Your task to perform on an android device: What's a good restaurant in Portland? Image 0: 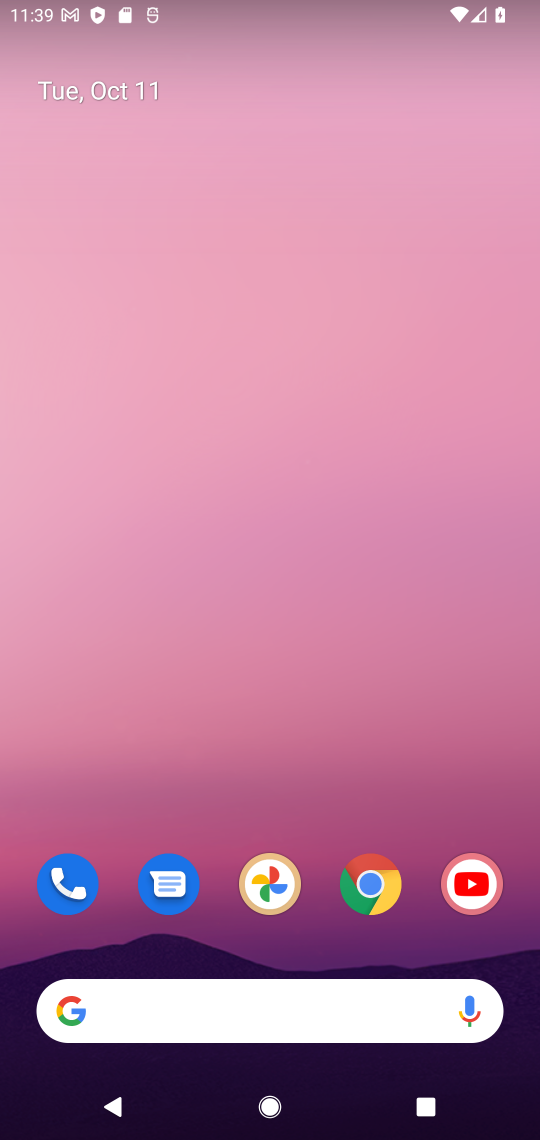
Step 0: press home button
Your task to perform on an android device: What's a good restaurant in Portland? Image 1: 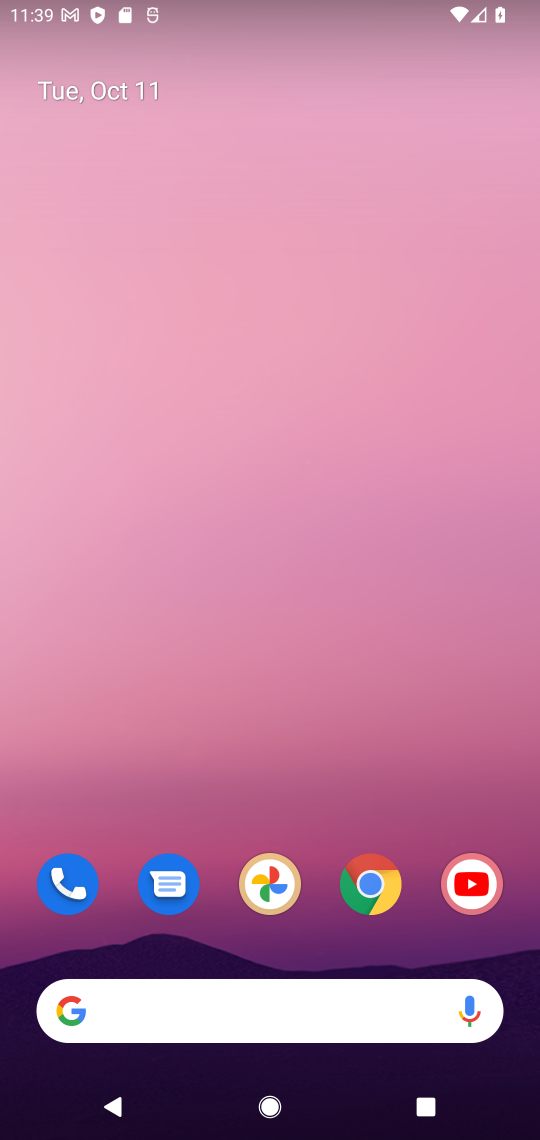
Step 1: drag from (273, 712) to (280, 328)
Your task to perform on an android device: What's a good restaurant in Portland? Image 2: 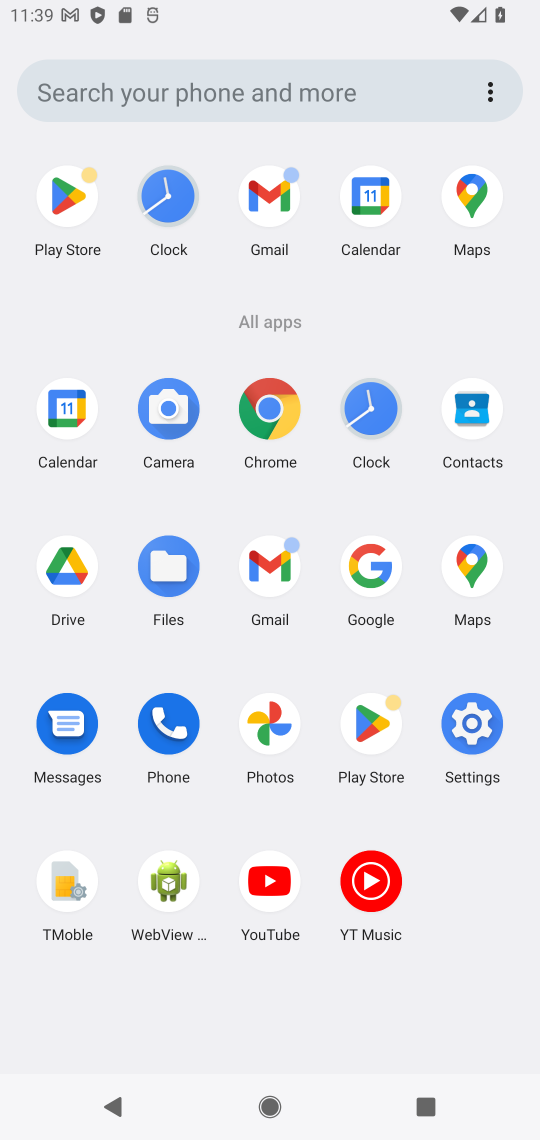
Step 2: click (370, 568)
Your task to perform on an android device: What's a good restaurant in Portland? Image 3: 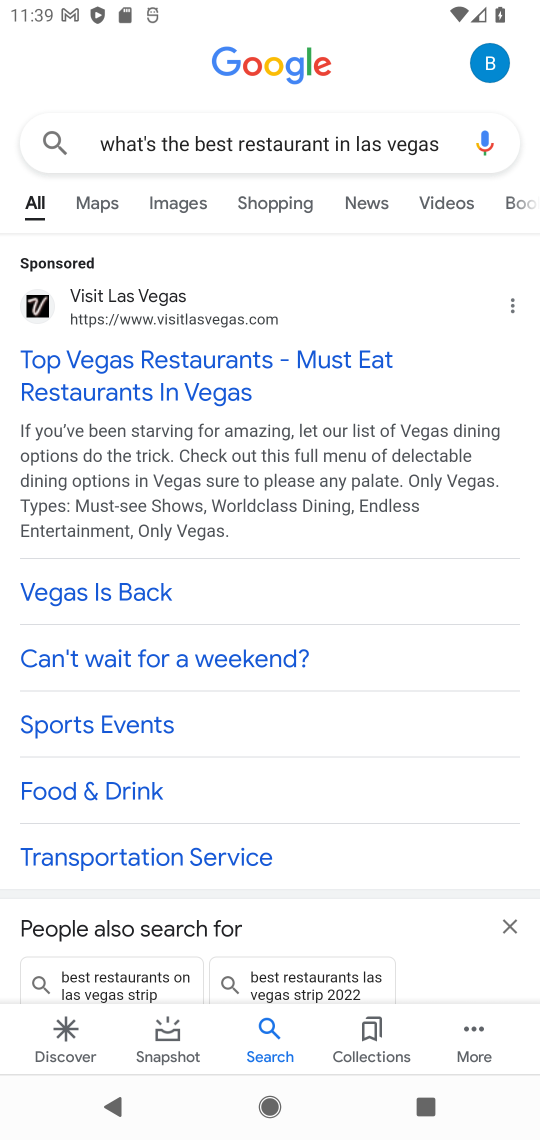
Step 3: click (334, 143)
Your task to perform on an android device: What's a good restaurant in Portland? Image 4: 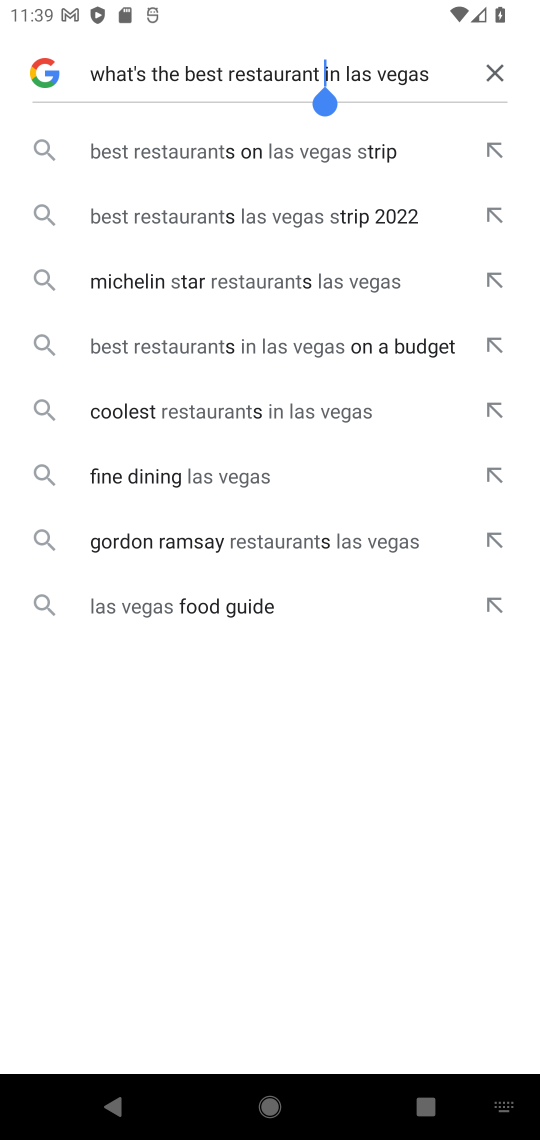
Step 4: click (494, 67)
Your task to perform on an android device: What's a good restaurant in Portland? Image 5: 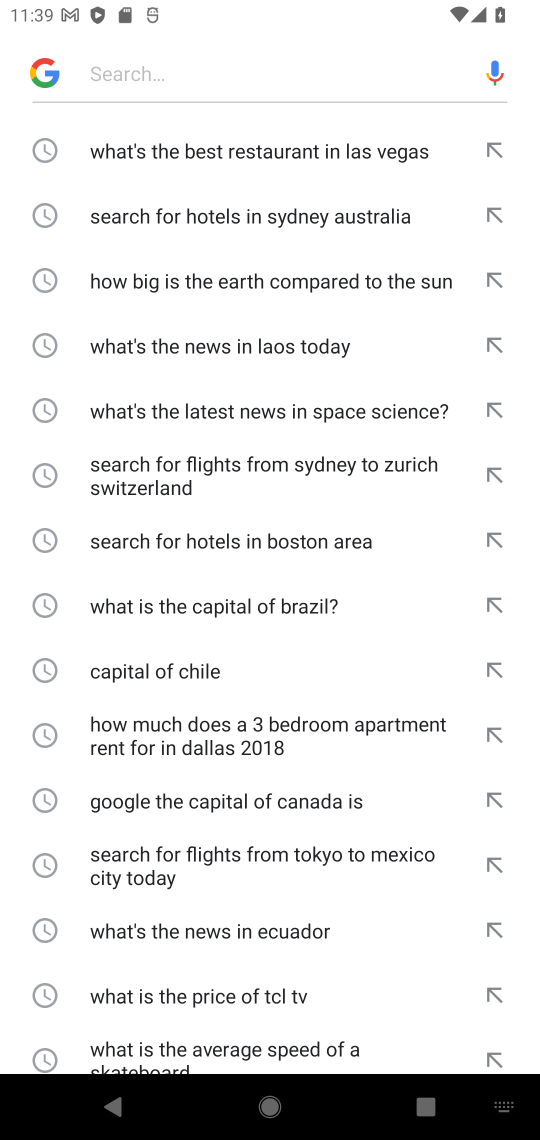
Step 5: type "What's a good restaurant in Portland?"
Your task to perform on an android device: What's a good restaurant in Portland? Image 6: 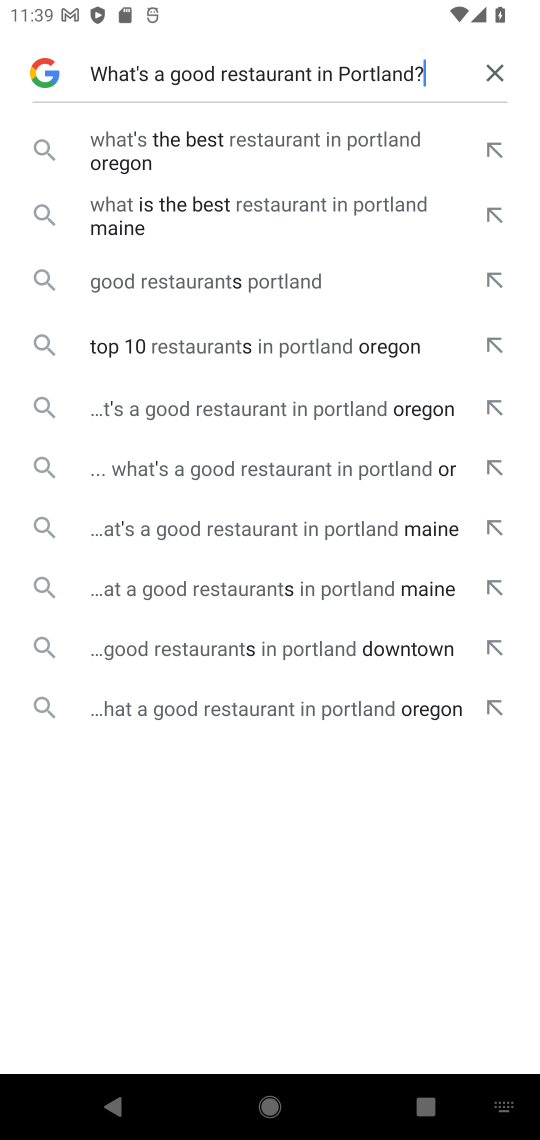
Step 6: click (274, 152)
Your task to perform on an android device: What's a good restaurant in Portland? Image 7: 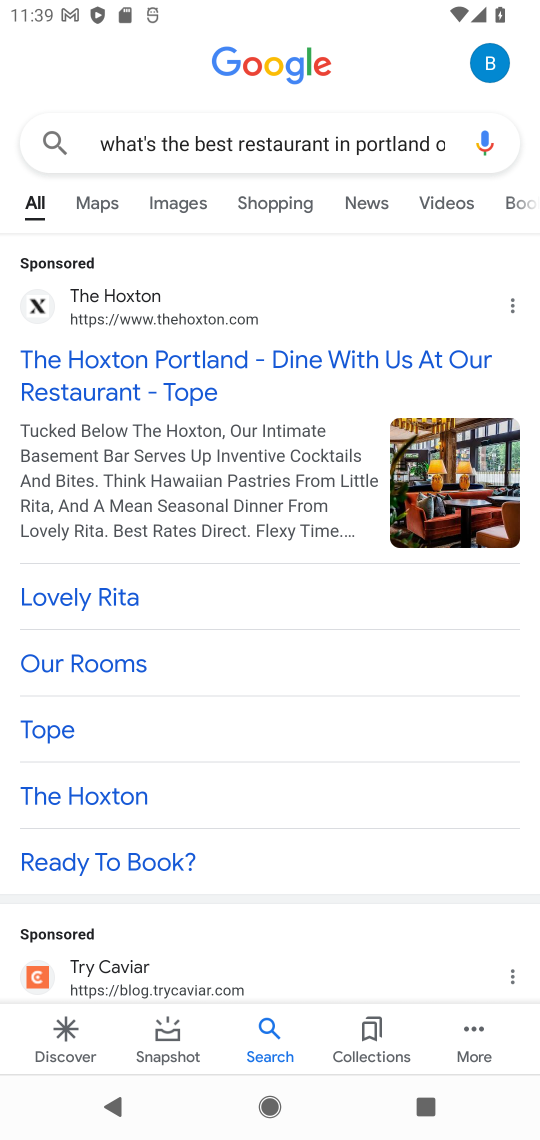
Step 7: click (198, 366)
Your task to perform on an android device: What's a good restaurant in Portland? Image 8: 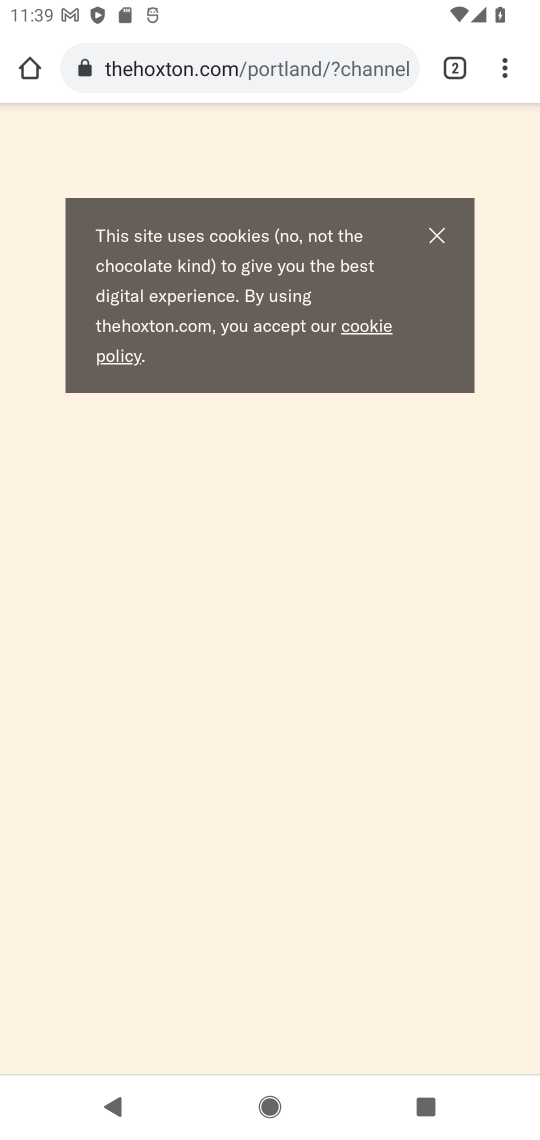
Step 8: task complete